Your task to perform on an android device: toggle priority inbox in the gmail app Image 0: 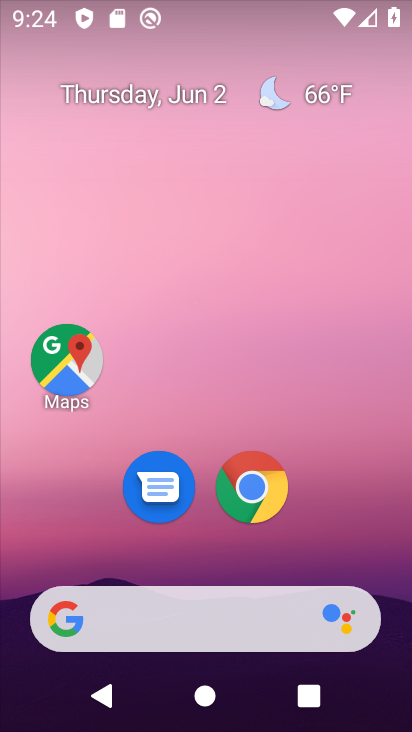
Step 0: drag from (243, 729) to (239, 97)
Your task to perform on an android device: toggle priority inbox in the gmail app Image 1: 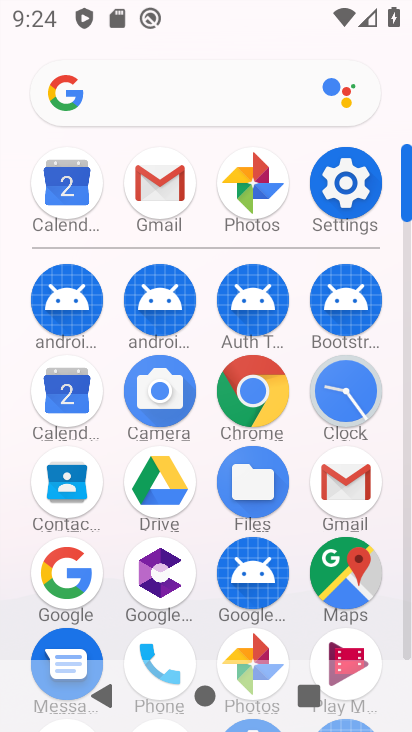
Step 1: click (340, 473)
Your task to perform on an android device: toggle priority inbox in the gmail app Image 2: 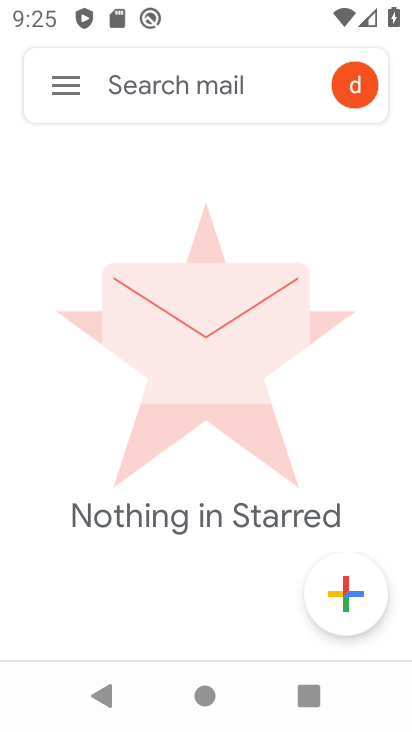
Step 2: click (61, 84)
Your task to perform on an android device: toggle priority inbox in the gmail app Image 3: 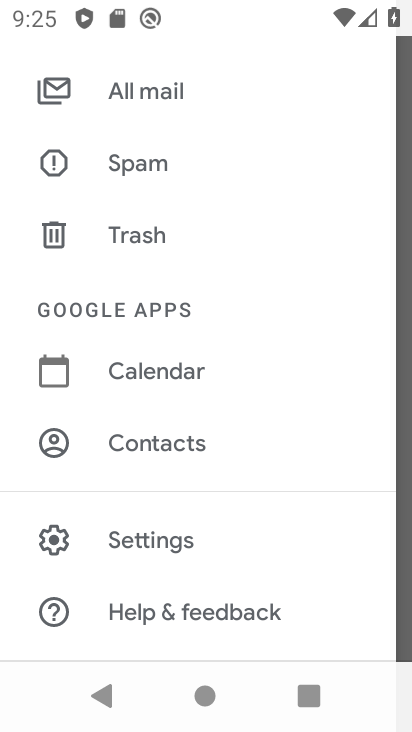
Step 3: click (142, 542)
Your task to perform on an android device: toggle priority inbox in the gmail app Image 4: 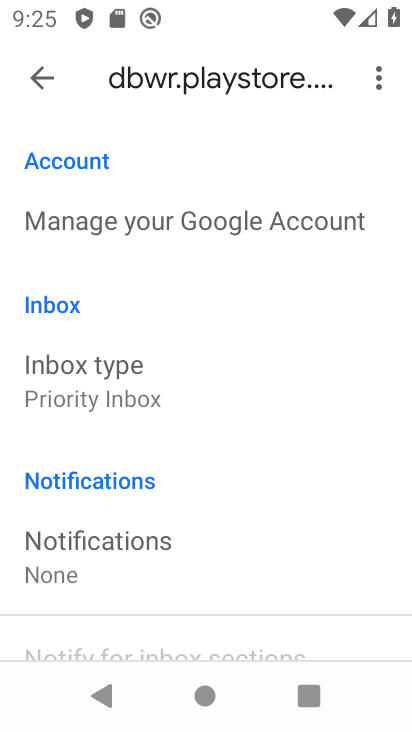
Step 4: click (115, 384)
Your task to perform on an android device: toggle priority inbox in the gmail app Image 5: 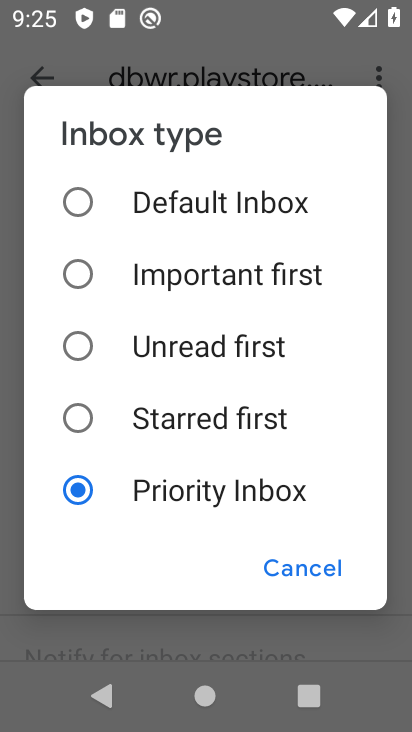
Step 5: click (77, 197)
Your task to perform on an android device: toggle priority inbox in the gmail app Image 6: 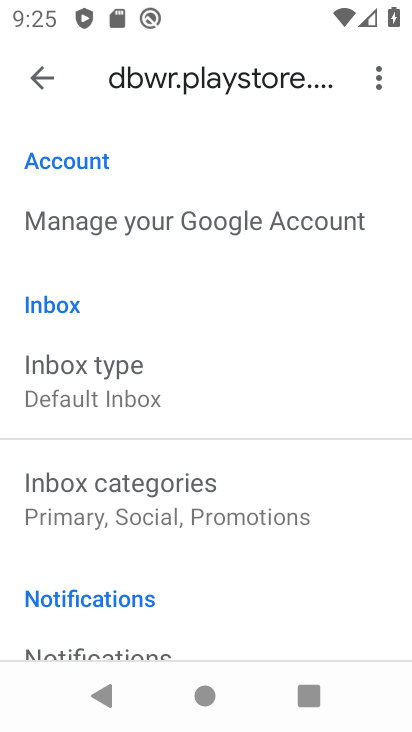
Step 6: task complete